Your task to perform on an android device: Open the stopwatch Image 0: 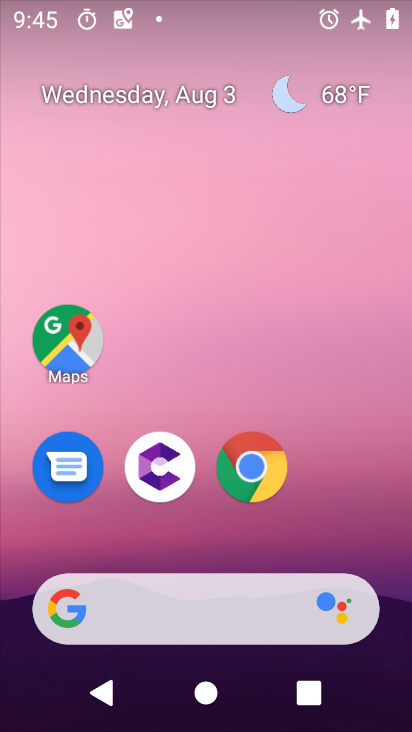
Step 0: drag from (355, 513) to (259, 104)
Your task to perform on an android device: Open the stopwatch Image 1: 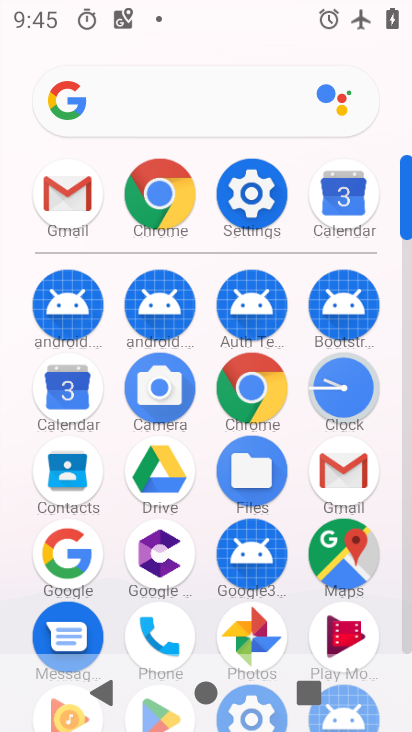
Step 1: click (338, 393)
Your task to perform on an android device: Open the stopwatch Image 2: 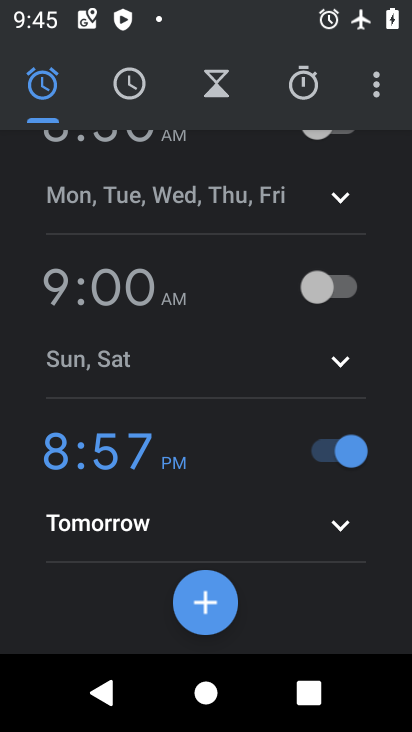
Step 2: click (322, 91)
Your task to perform on an android device: Open the stopwatch Image 3: 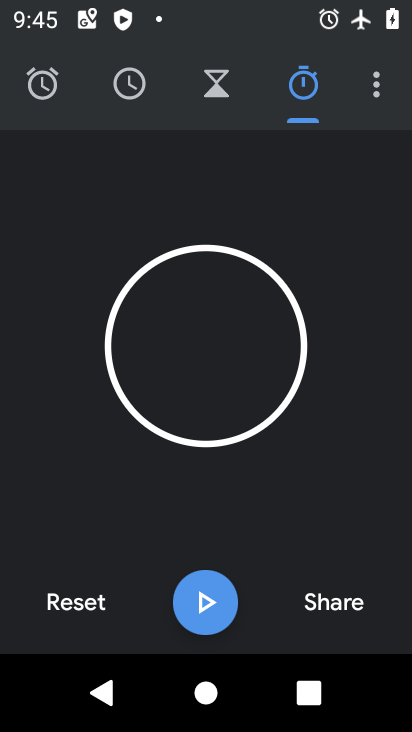
Step 3: task complete